Your task to perform on an android device: turn on location history Image 0: 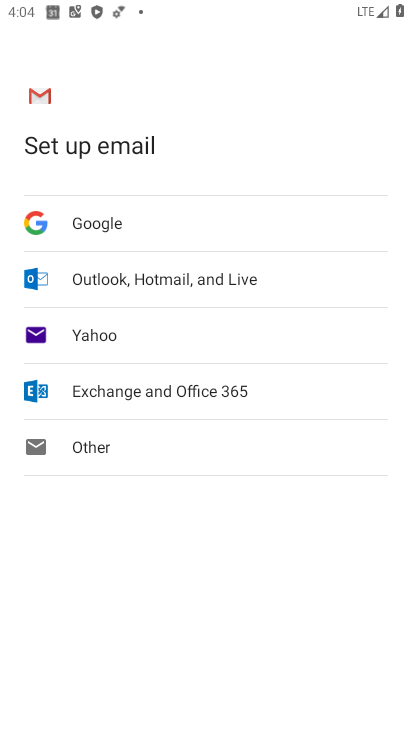
Step 0: press home button
Your task to perform on an android device: turn on location history Image 1: 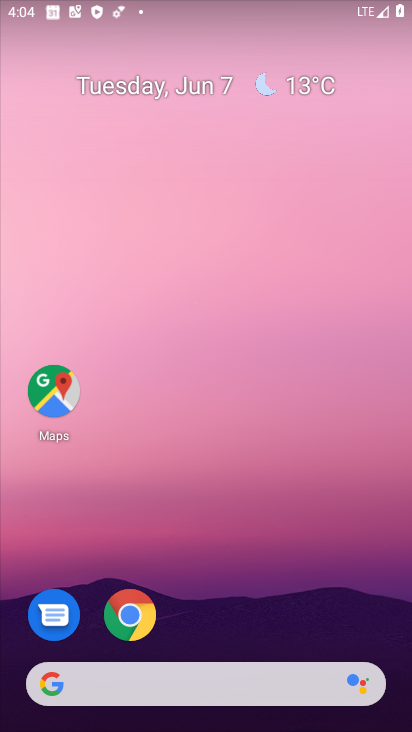
Step 1: drag from (200, 718) to (199, 111)
Your task to perform on an android device: turn on location history Image 2: 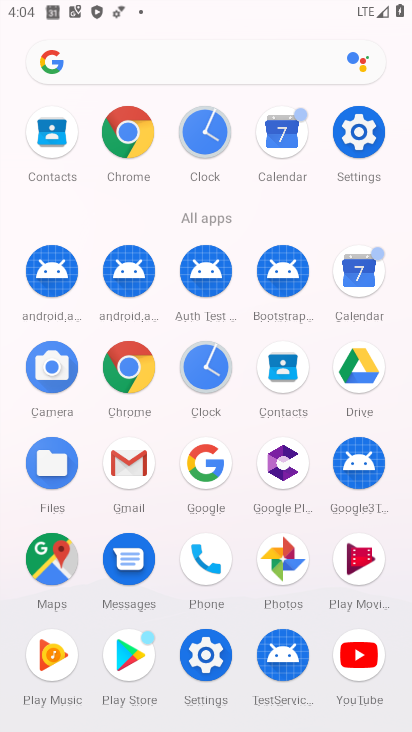
Step 2: click (361, 139)
Your task to perform on an android device: turn on location history Image 3: 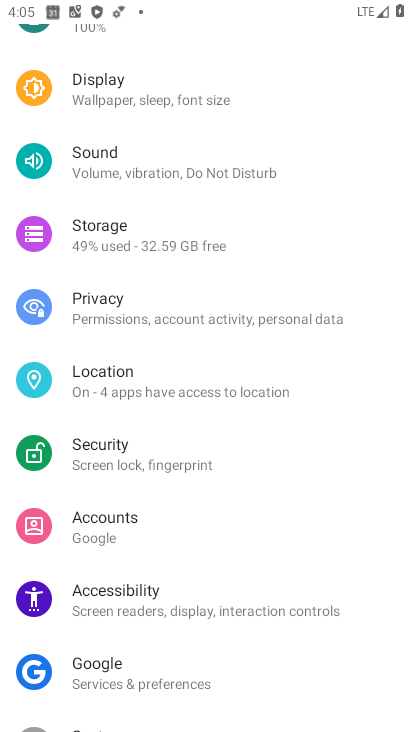
Step 3: click (115, 379)
Your task to perform on an android device: turn on location history Image 4: 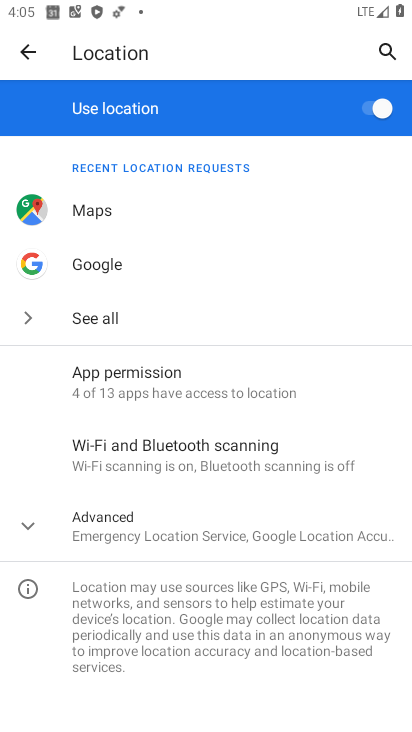
Step 4: click (104, 522)
Your task to perform on an android device: turn on location history Image 5: 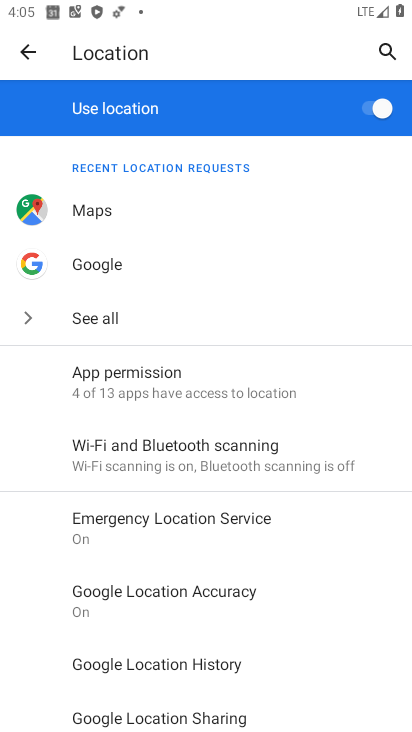
Step 5: click (142, 662)
Your task to perform on an android device: turn on location history Image 6: 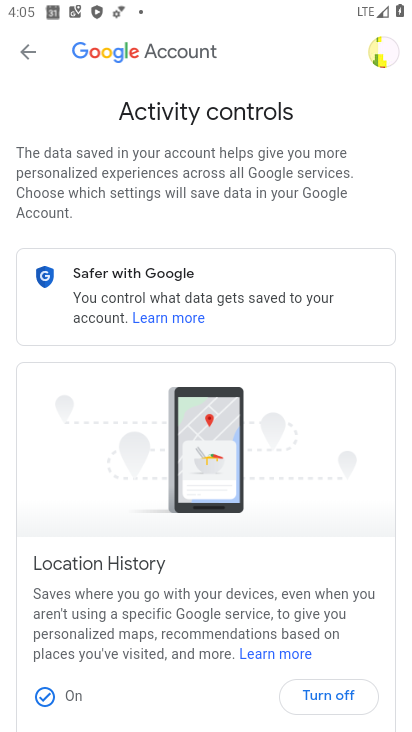
Step 6: task complete